Your task to perform on an android device: Open accessibility settings Image 0: 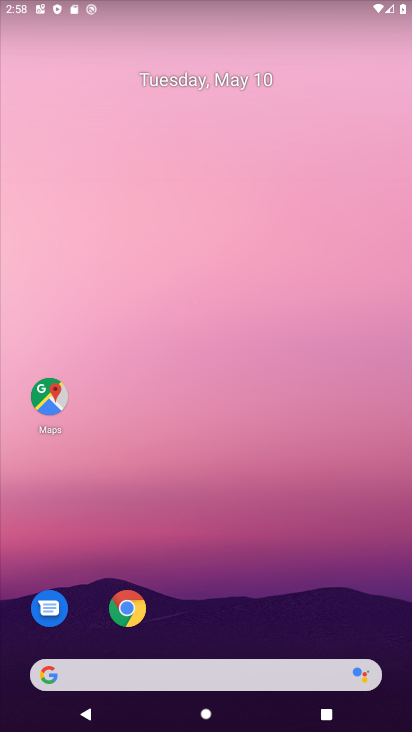
Step 0: drag from (229, 628) to (296, 2)
Your task to perform on an android device: Open accessibility settings Image 1: 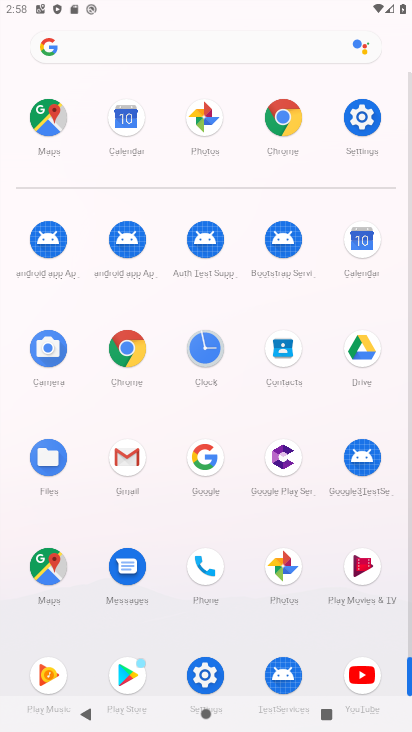
Step 1: click (354, 117)
Your task to perform on an android device: Open accessibility settings Image 2: 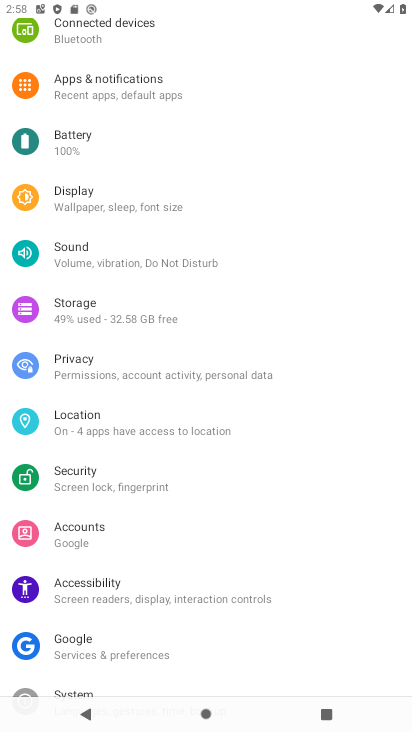
Step 2: click (190, 598)
Your task to perform on an android device: Open accessibility settings Image 3: 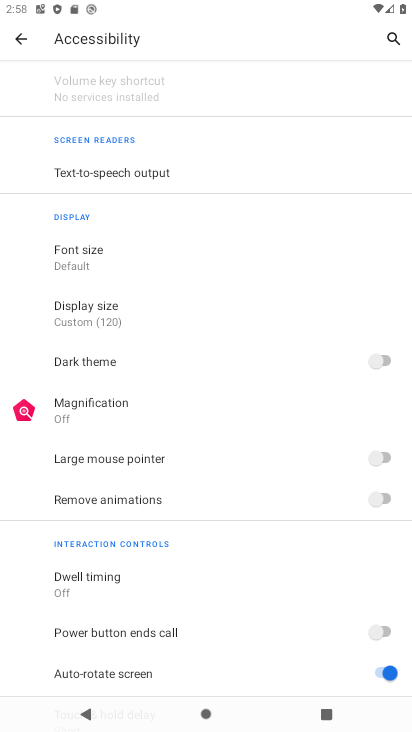
Step 3: task complete